Your task to perform on an android device: turn vacation reply on in the gmail app Image 0: 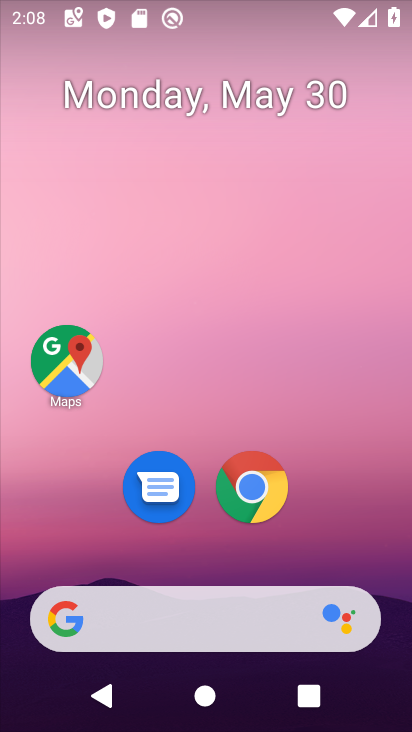
Step 0: drag from (266, 555) to (343, 44)
Your task to perform on an android device: turn vacation reply on in the gmail app Image 1: 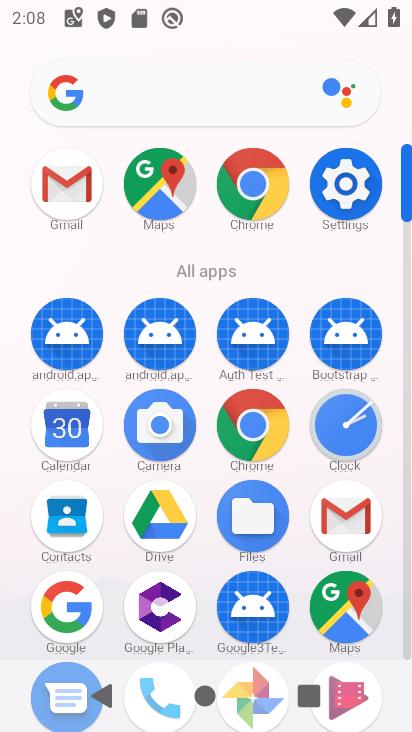
Step 1: click (69, 206)
Your task to perform on an android device: turn vacation reply on in the gmail app Image 2: 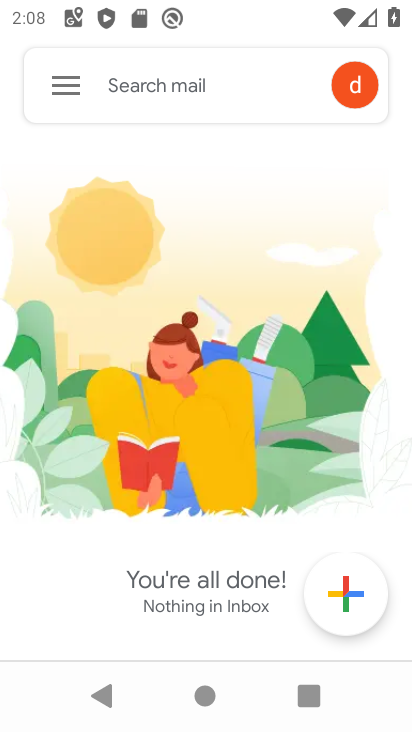
Step 2: click (73, 78)
Your task to perform on an android device: turn vacation reply on in the gmail app Image 3: 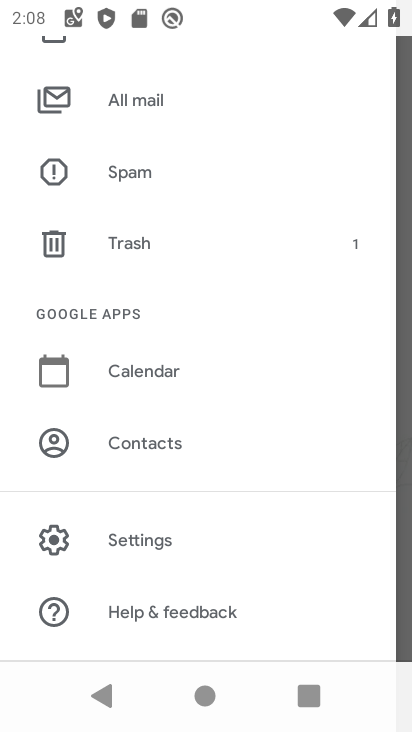
Step 3: click (163, 545)
Your task to perform on an android device: turn vacation reply on in the gmail app Image 4: 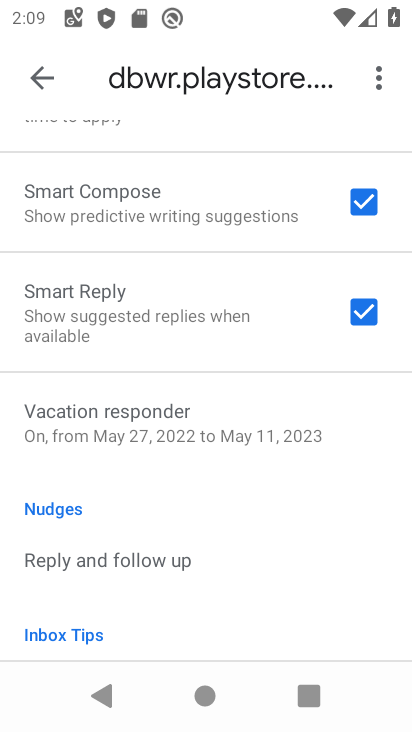
Step 4: click (141, 444)
Your task to perform on an android device: turn vacation reply on in the gmail app Image 5: 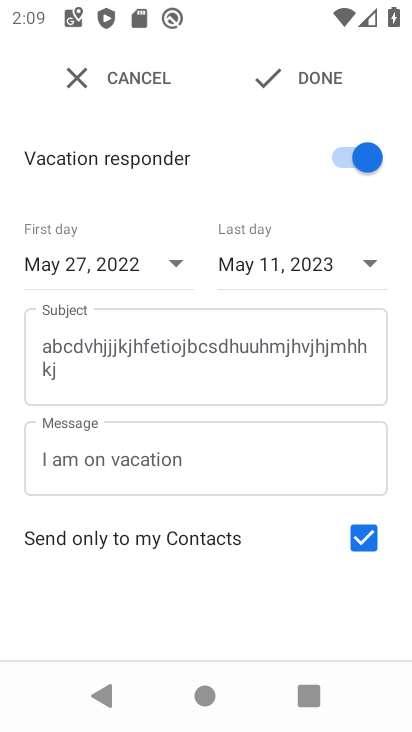
Step 5: task complete